Your task to perform on an android device: toggle location history Image 0: 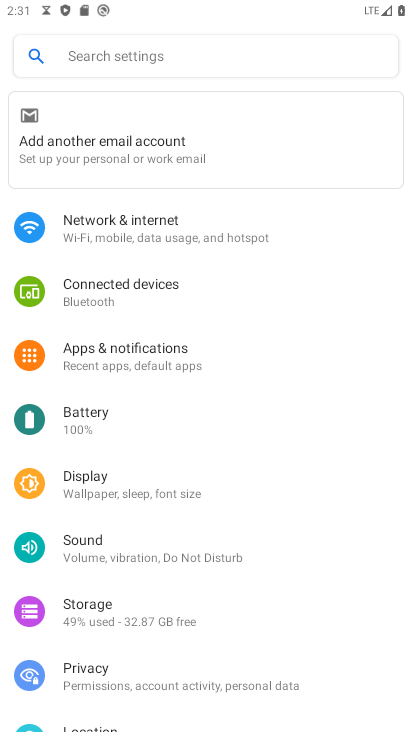
Step 0: drag from (256, 617) to (264, 382)
Your task to perform on an android device: toggle location history Image 1: 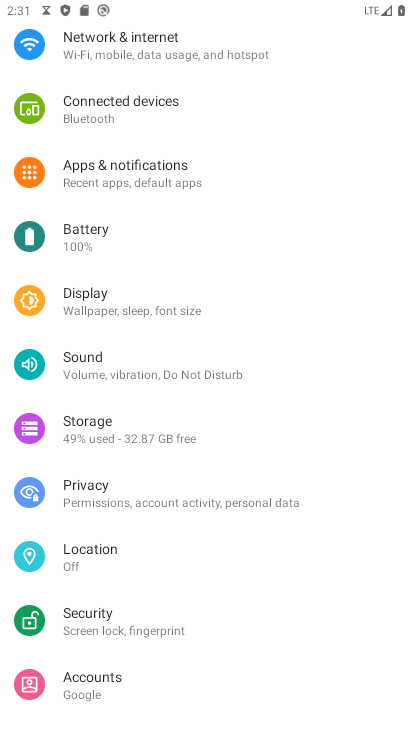
Step 1: press home button
Your task to perform on an android device: toggle location history Image 2: 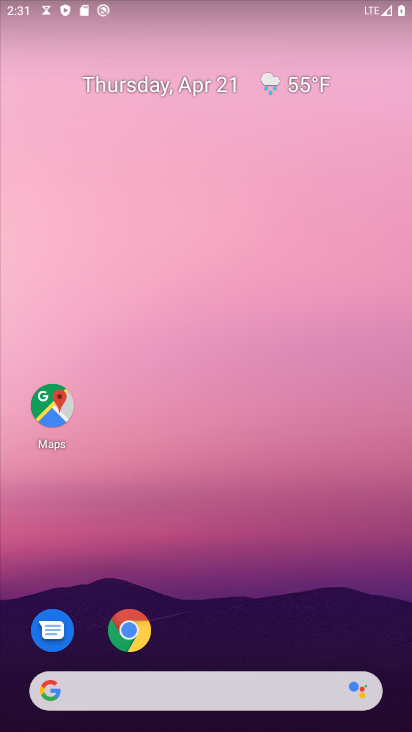
Step 2: click (49, 402)
Your task to perform on an android device: toggle location history Image 3: 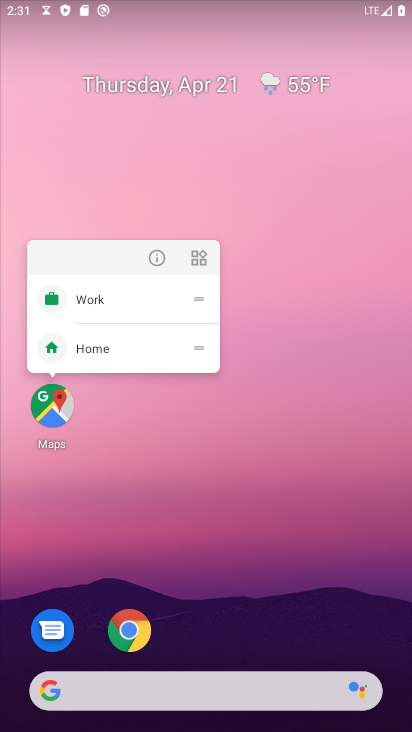
Step 3: click (47, 409)
Your task to perform on an android device: toggle location history Image 4: 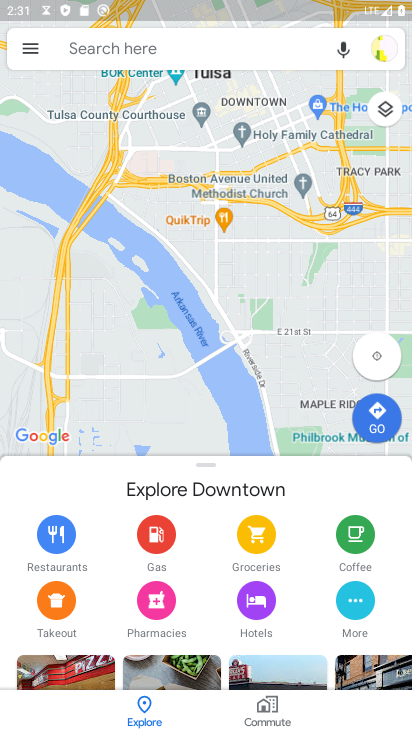
Step 4: click (34, 49)
Your task to perform on an android device: toggle location history Image 5: 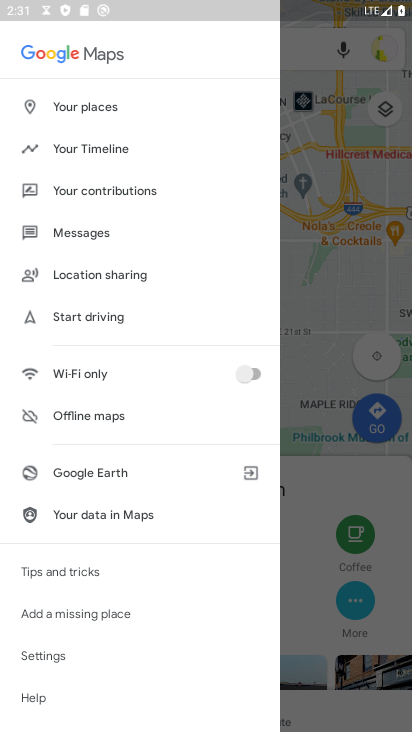
Step 5: click (99, 142)
Your task to perform on an android device: toggle location history Image 6: 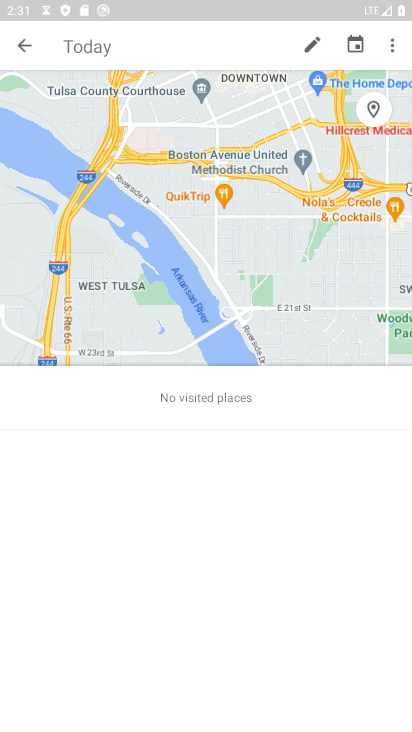
Step 6: click (394, 54)
Your task to perform on an android device: toggle location history Image 7: 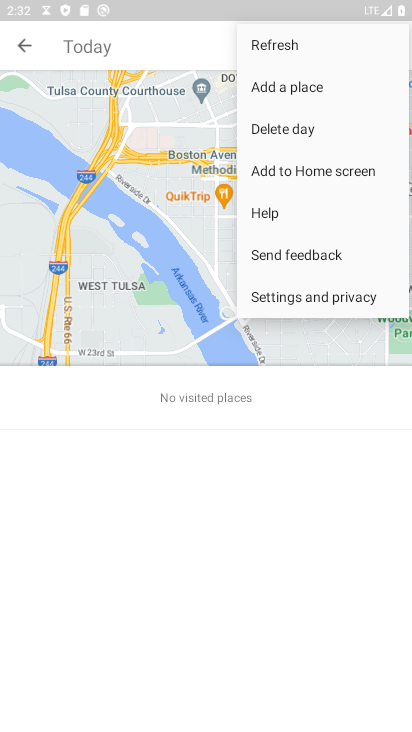
Step 7: click (282, 297)
Your task to perform on an android device: toggle location history Image 8: 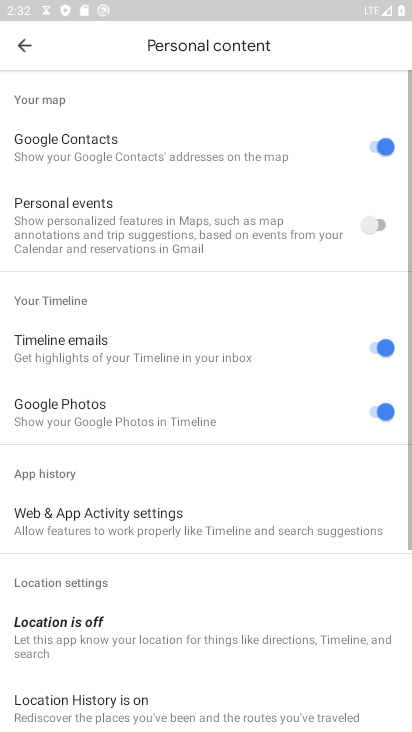
Step 8: drag from (210, 549) to (222, 325)
Your task to perform on an android device: toggle location history Image 9: 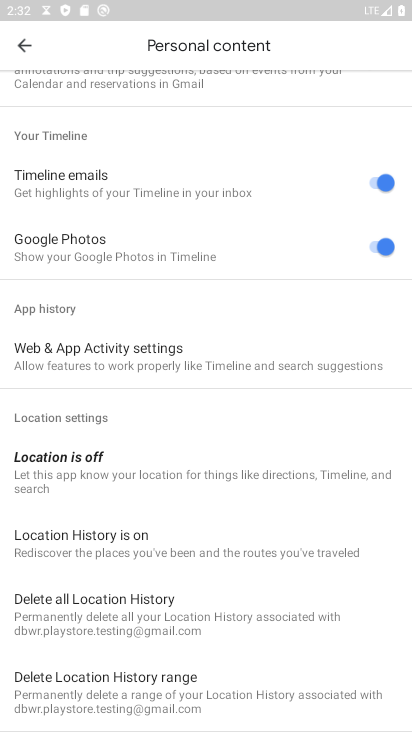
Step 9: click (98, 550)
Your task to perform on an android device: toggle location history Image 10: 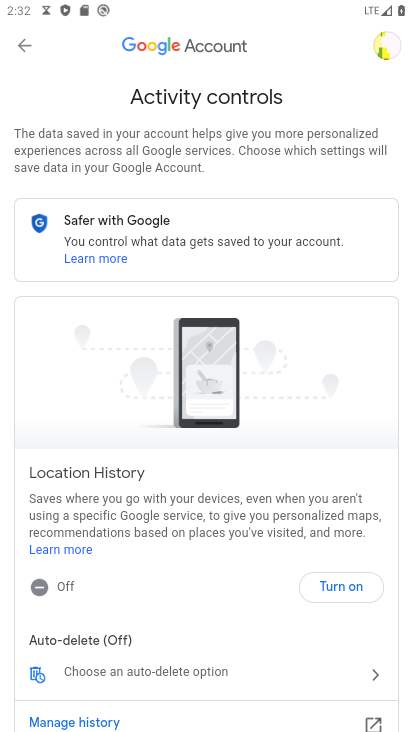
Step 10: click (345, 590)
Your task to perform on an android device: toggle location history Image 11: 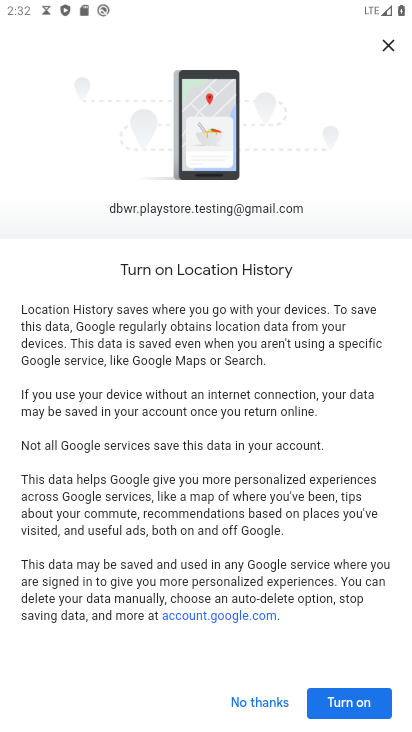
Step 11: click (328, 701)
Your task to perform on an android device: toggle location history Image 12: 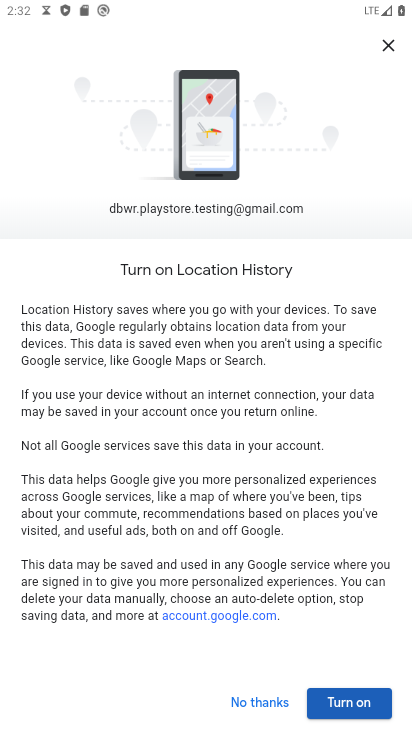
Step 12: click (355, 712)
Your task to perform on an android device: toggle location history Image 13: 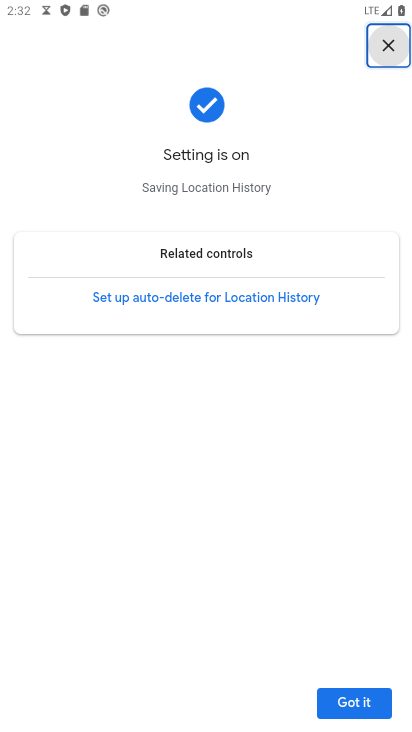
Step 13: click (350, 707)
Your task to perform on an android device: toggle location history Image 14: 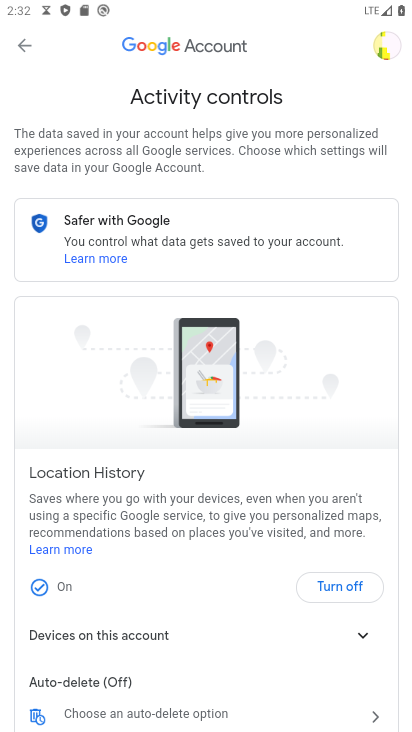
Step 14: task complete